Your task to perform on an android device: What is the news today? Image 0: 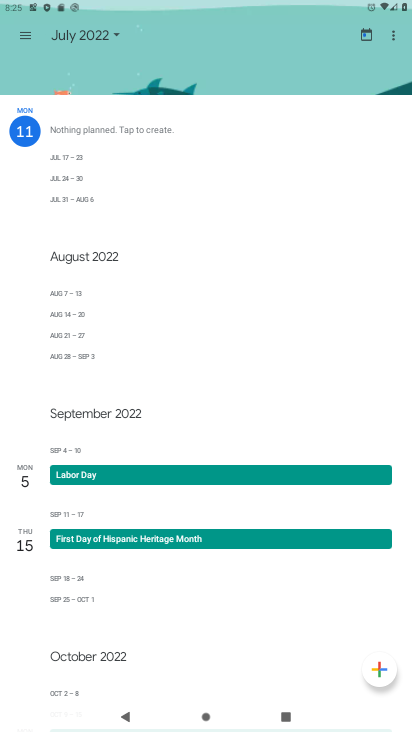
Step 0: press home button
Your task to perform on an android device: What is the news today? Image 1: 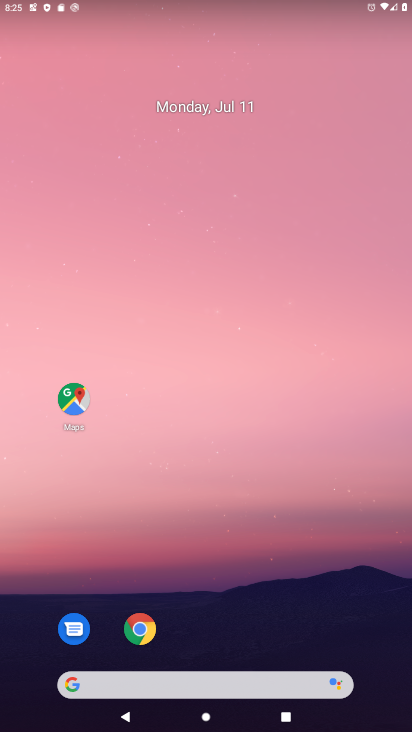
Step 1: drag from (221, 625) to (230, 72)
Your task to perform on an android device: What is the news today? Image 2: 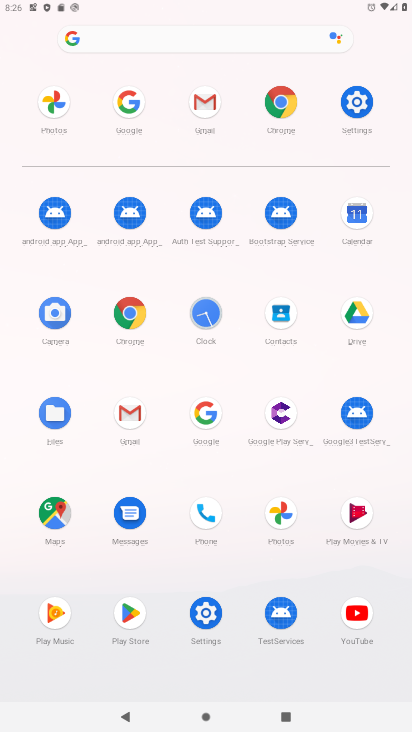
Step 2: click (208, 411)
Your task to perform on an android device: What is the news today? Image 3: 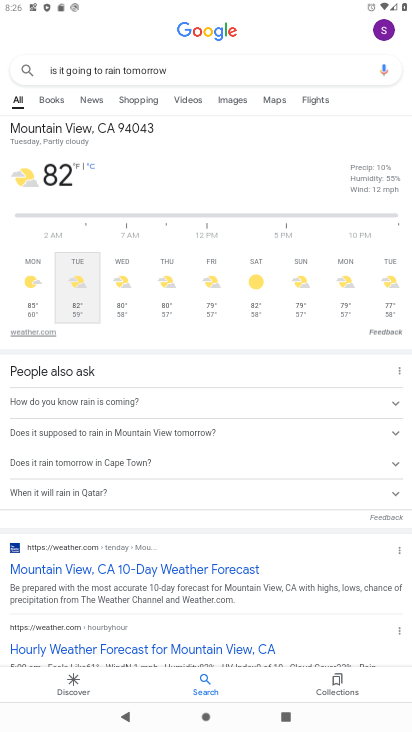
Step 3: click (351, 69)
Your task to perform on an android device: What is the news today? Image 4: 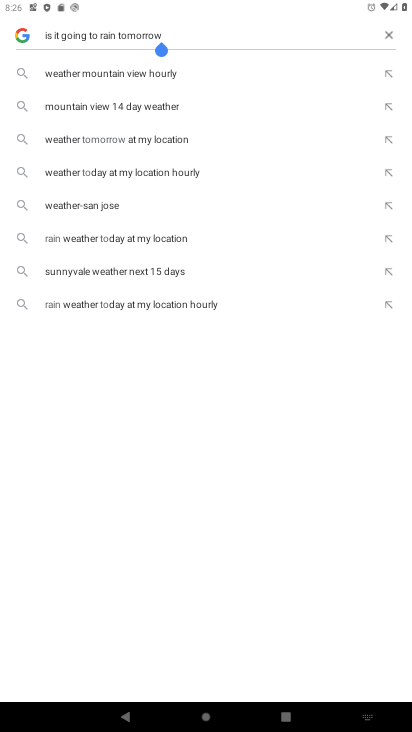
Step 4: click (387, 32)
Your task to perform on an android device: What is the news today? Image 5: 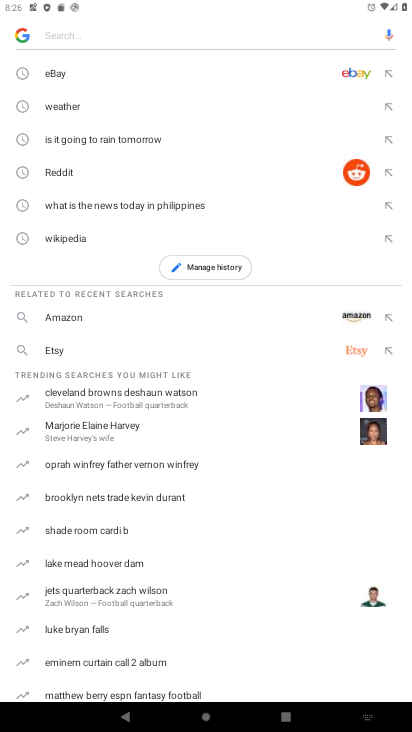
Step 5: type "news today"
Your task to perform on an android device: What is the news today? Image 6: 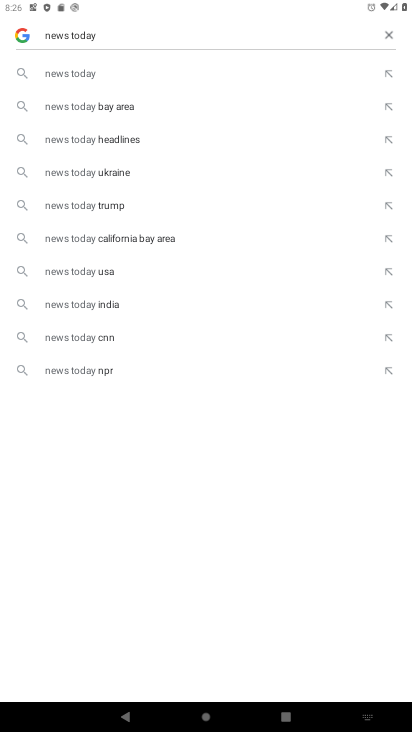
Step 6: click (105, 66)
Your task to perform on an android device: What is the news today? Image 7: 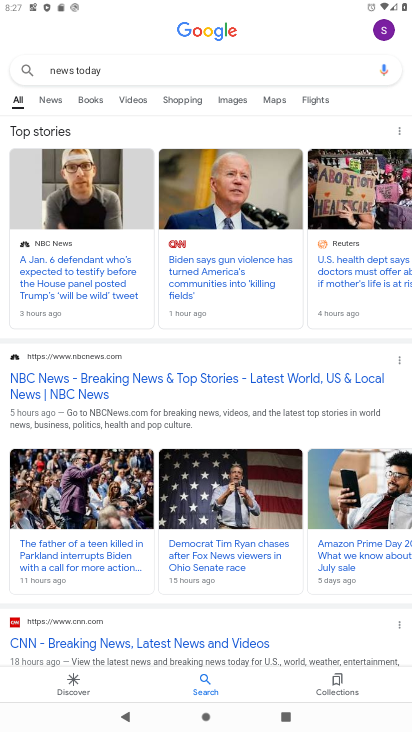
Step 7: task complete